Your task to perform on an android device: turn on data saver in the chrome app Image 0: 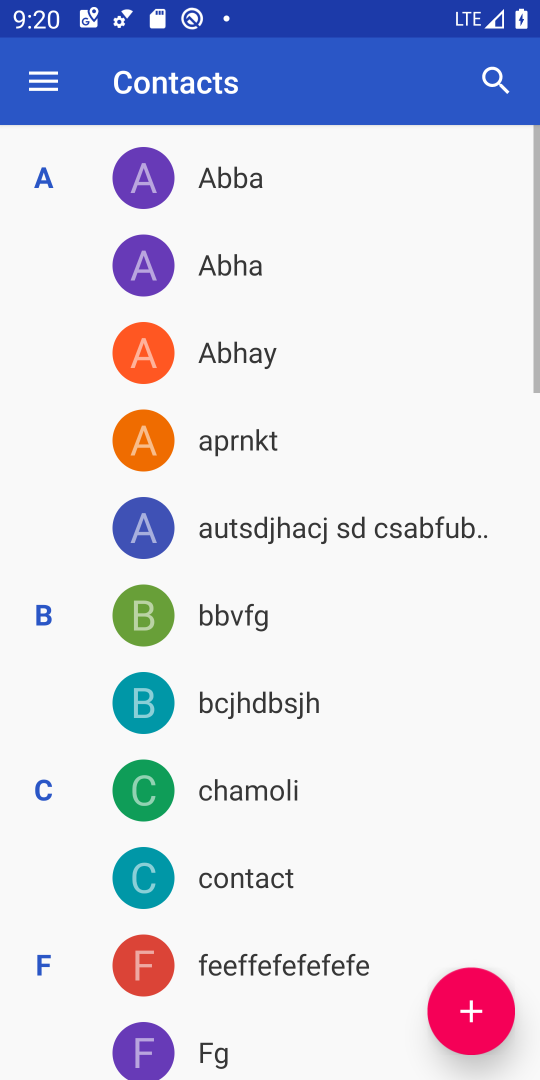
Step 0: press home button
Your task to perform on an android device: turn on data saver in the chrome app Image 1: 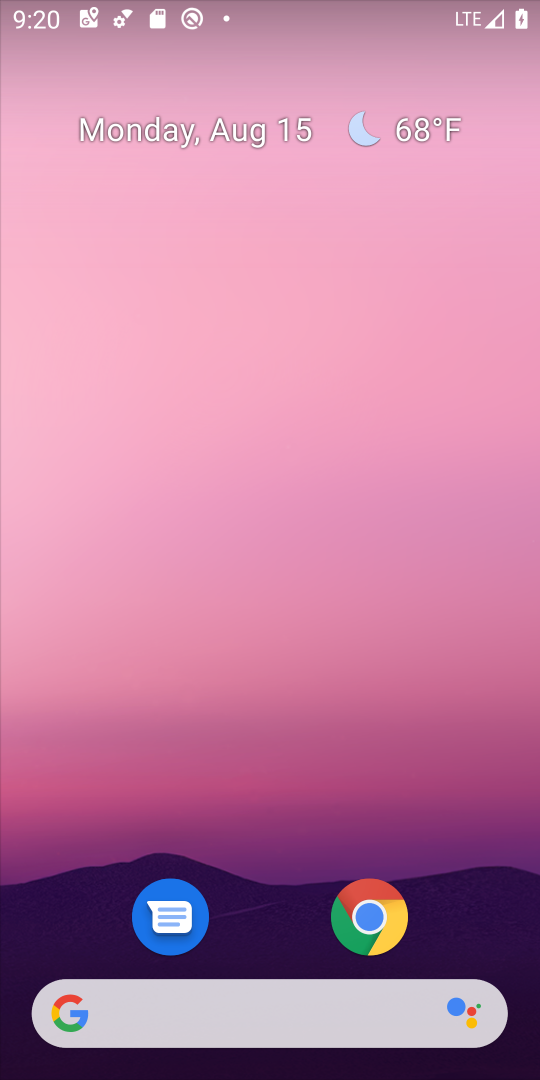
Step 1: click (362, 904)
Your task to perform on an android device: turn on data saver in the chrome app Image 2: 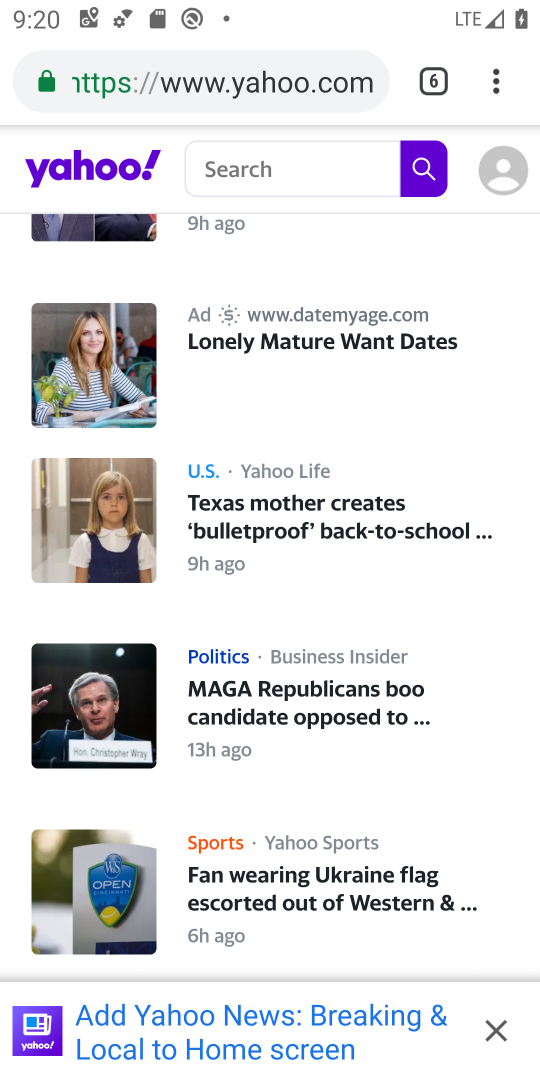
Step 2: click (362, 902)
Your task to perform on an android device: turn on data saver in the chrome app Image 3: 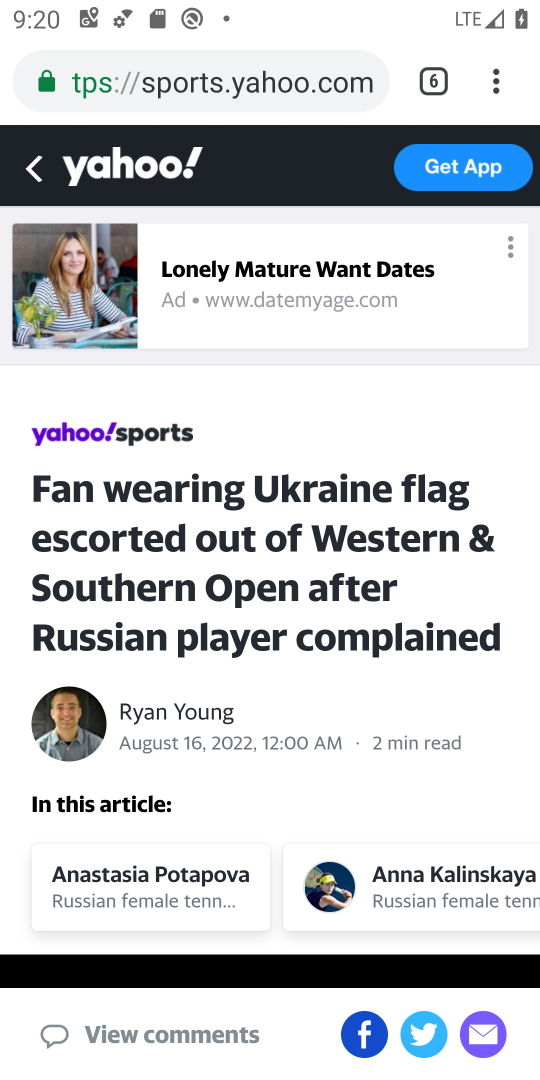
Step 3: click (493, 68)
Your task to perform on an android device: turn on data saver in the chrome app Image 4: 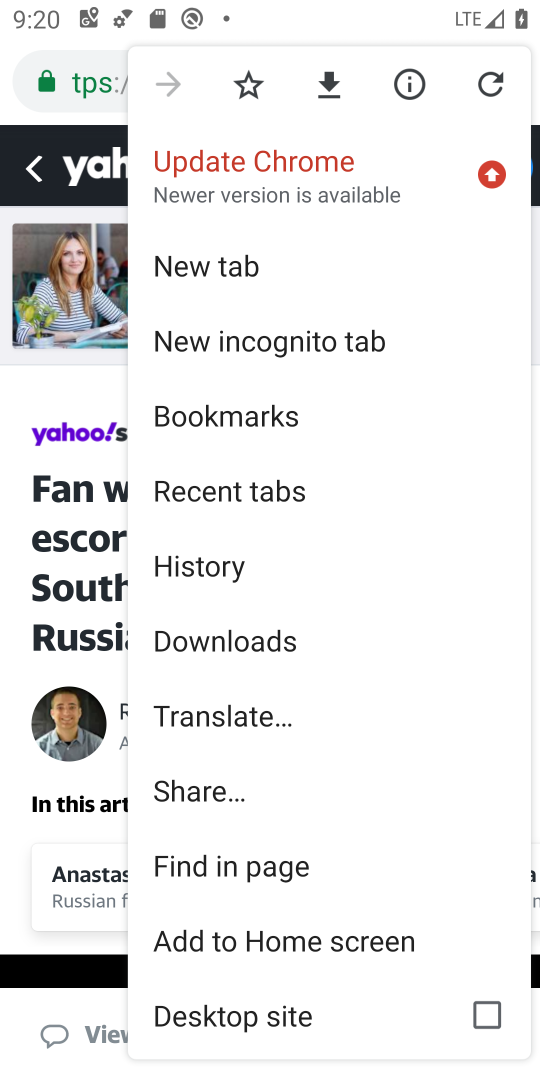
Step 4: drag from (371, 778) to (369, 389)
Your task to perform on an android device: turn on data saver in the chrome app Image 5: 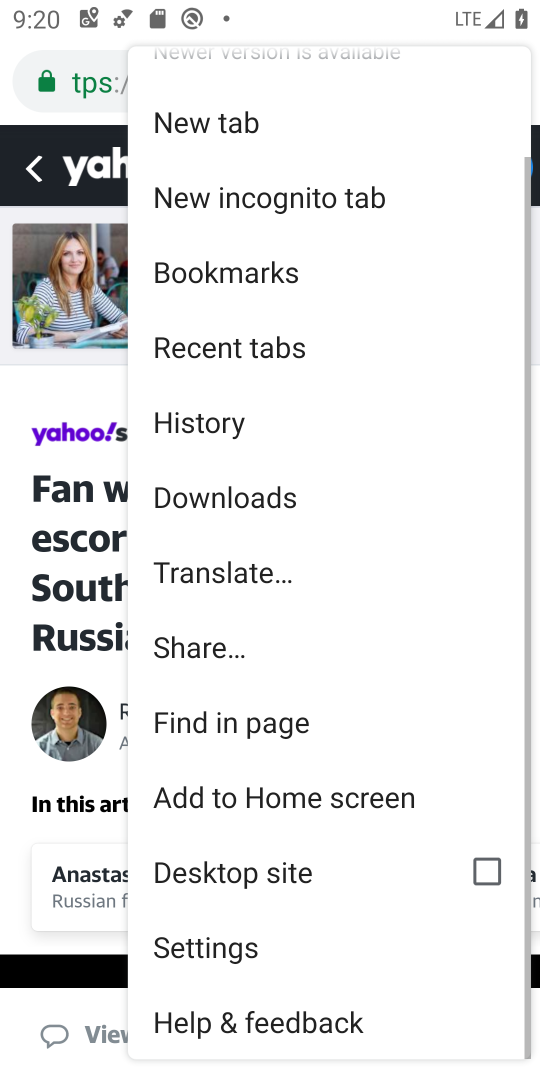
Step 5: click (236, 951)
Your task to perform on an android device: turn on data saver in the chrome app Image 6: 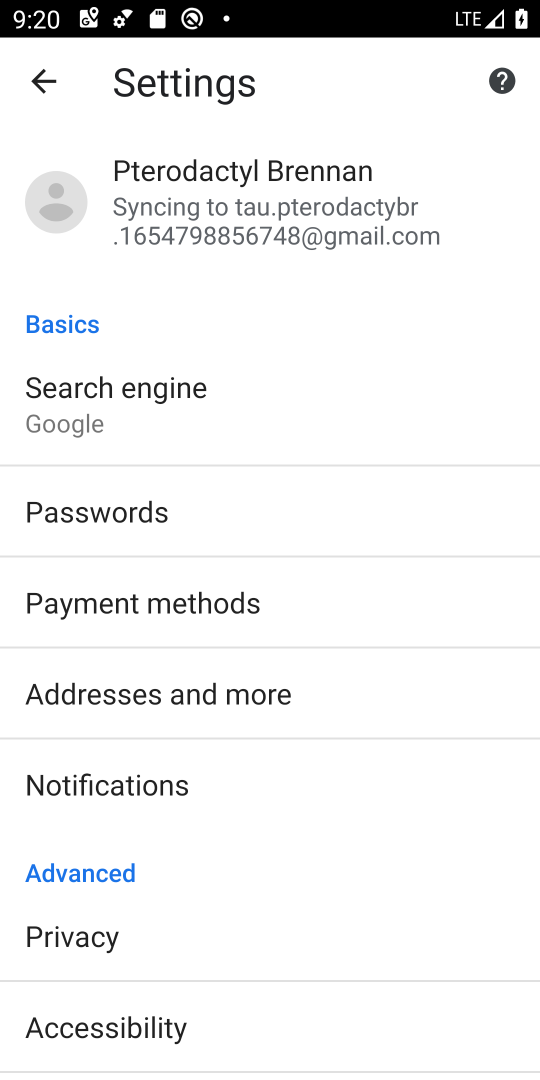
Step 6: drag from (330, 798) to (312, 35)
Your task to perform on an android device: turn on data saver in the chrome app Image 7: 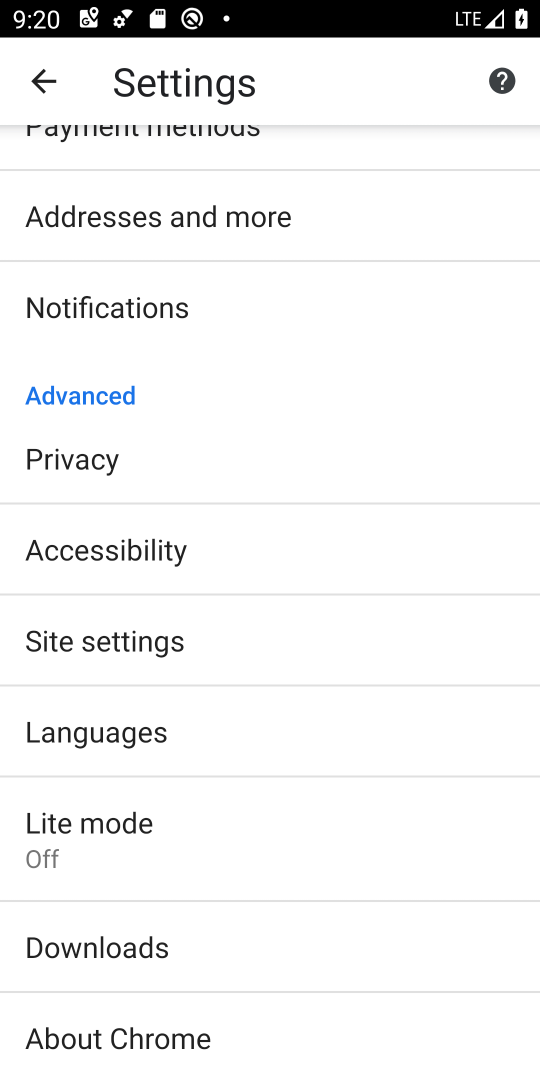
Step 7: click (163, 845)
Your task to perform on an android device: turn on data saver in the chrome app Image 8: 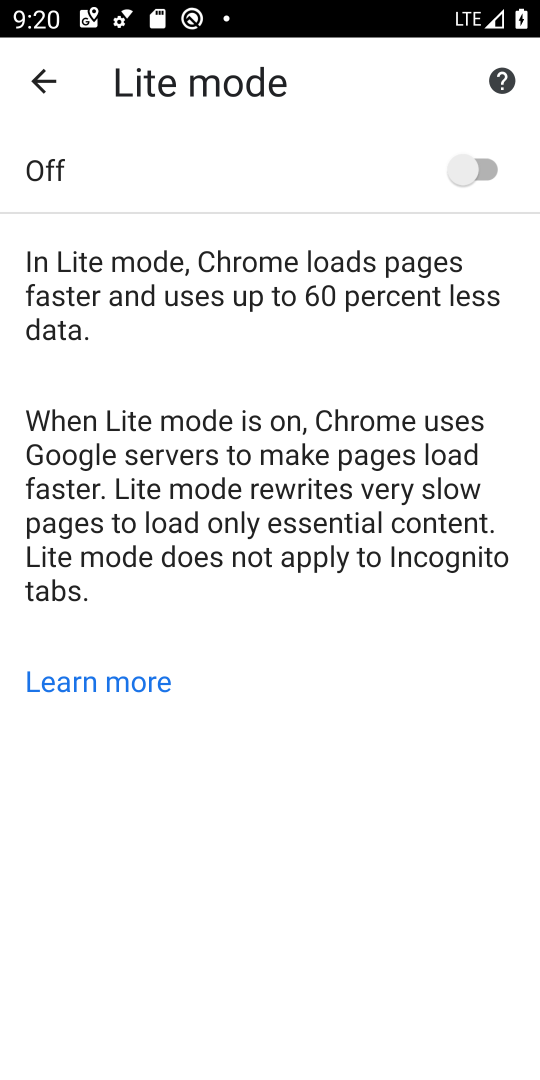
Step 8: click (480, 160)
Your task to perform on an android device: turn on data saver in the chrome app Image 9: 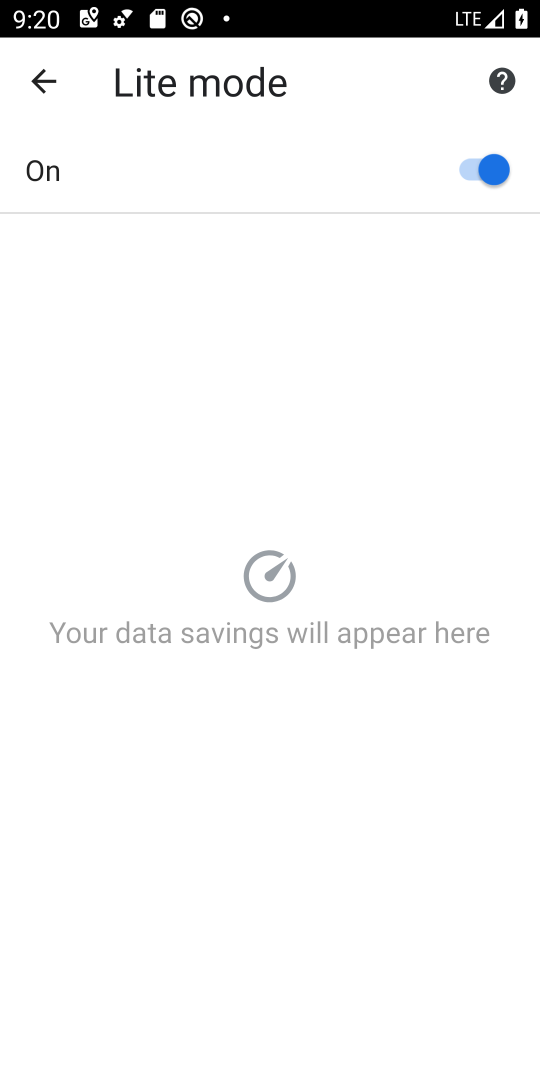
Step 9: task complete